Your task to perform on an android device: Turn off the flashlight Image 0: 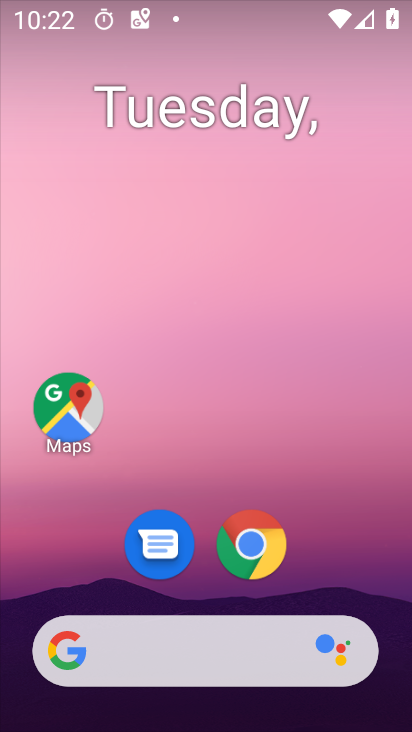
Step 0: drag from (197, 7) to (200, 176)
Your task to perform on an android device: Turn off the flashlight Image 1: 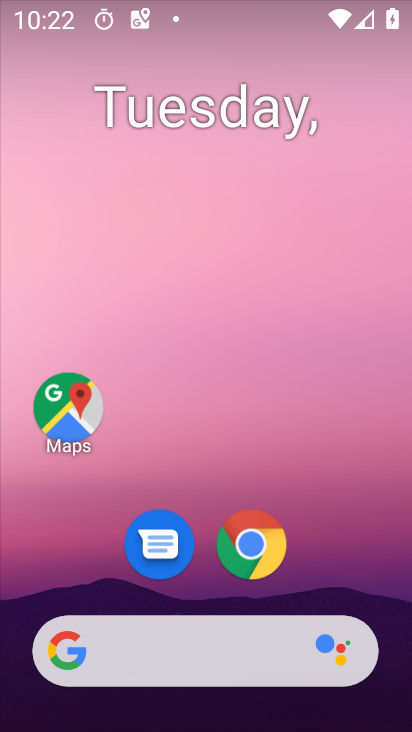
Step 1: drag from (239, 4) to (244, 371)
Your task to perform on an android device: Turn off the flashlight Image 2: 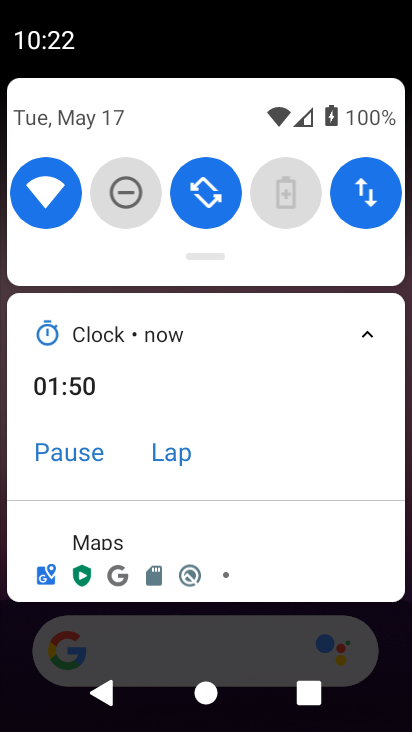
Step 2: drag from (242, 229) to (265, 502)
Your task to perform on an android device: Turn off the flashlight Image 3: 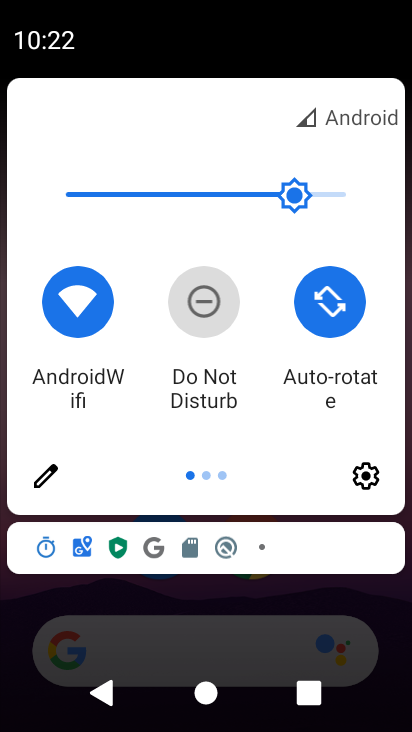
Step 3: click (40, 477)
Your task to perform on an android device: Turn off the flashlight Image 4: 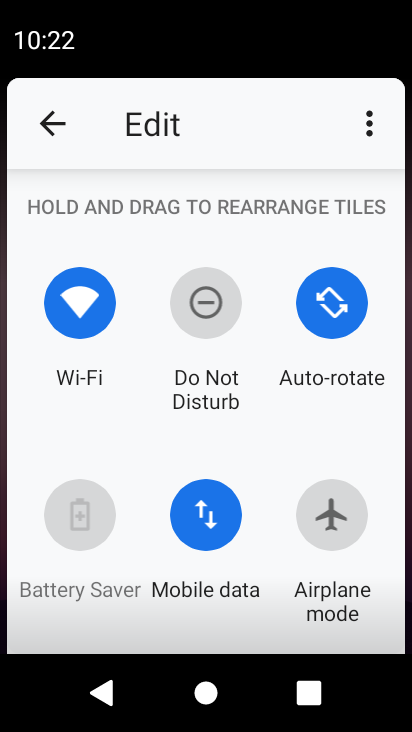
Step 4: drag from (283, 539) to (241, 248)
Your task to perform on an android device: Turn off the flashlight Image 5: 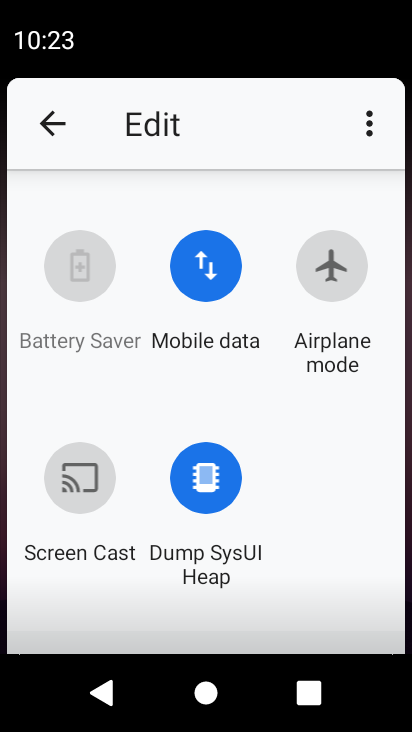
Step 5: click (296, 530)
Your task to perform on an android device: Turn off the flashlight Image 6: 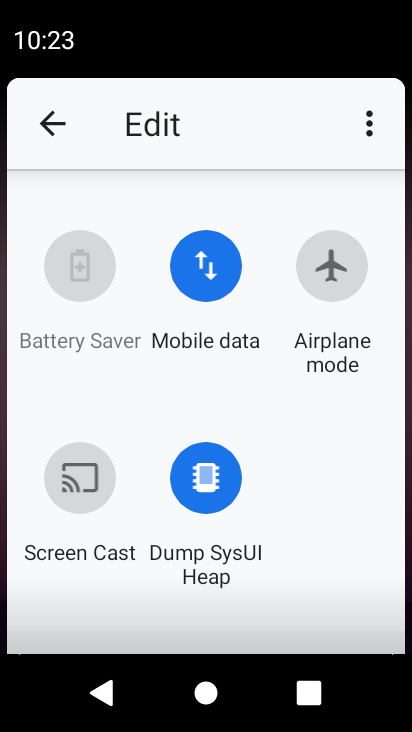
Step 6: task complete